Your task to perform on an android device: Open calendar and show me the second week of next month Image 0: 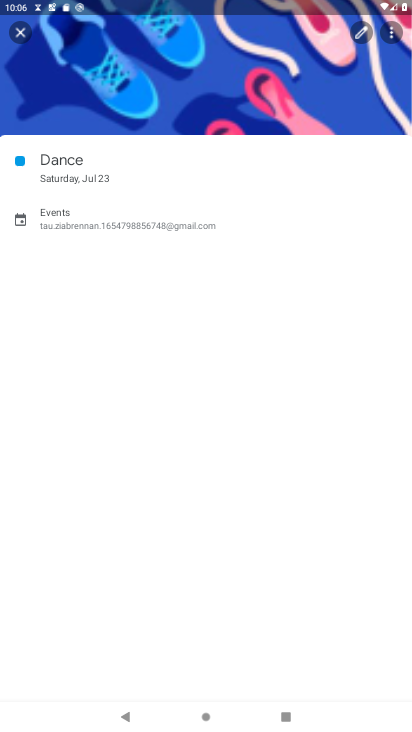
Step 0: press home button
Your task to perform on an android device: Open calendar and show me the second week of next month Image 1: 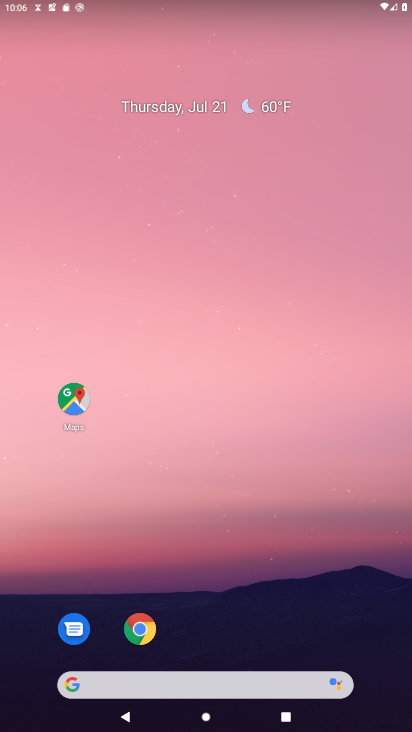
Step 1: drag from (199, 653) to (229, 223)
Your task to perform on an android device: Open calendar and show me the second week of next month Image 2: 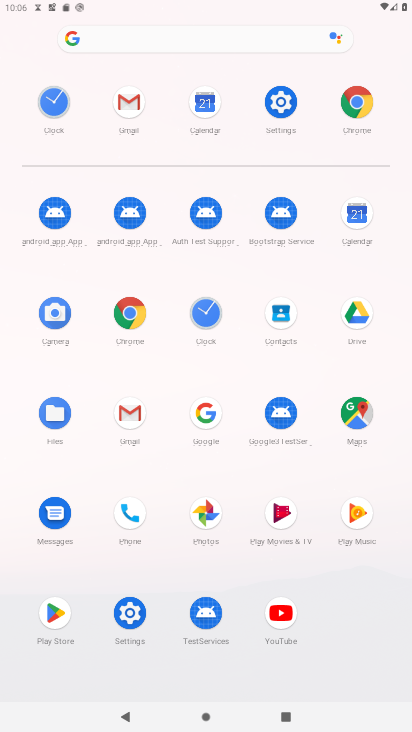
Step 2: click (362, 215)
Your task to perform on an android device: Open calendar and show me the second week of next month Image 3: 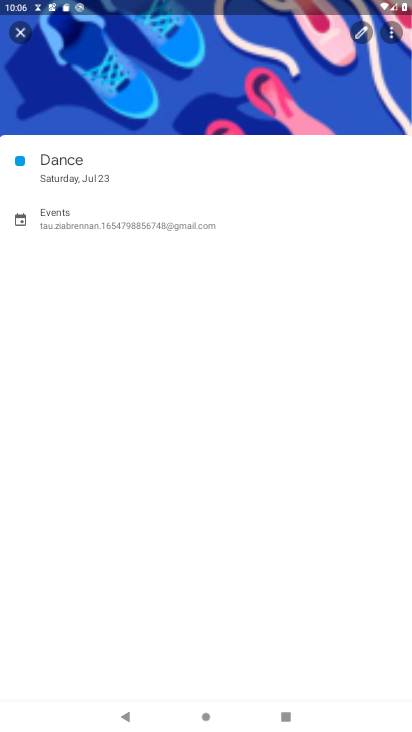
Step 3: click (22, 35)
Your task to perform on an android device: Open calendar and show me the second week of next month Image 4: 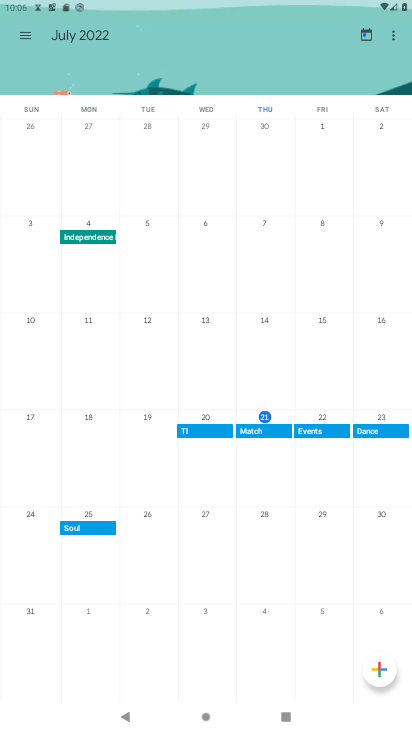
Step 4: drag from (341, 292) to (0, 45)
Your task to perform on an android device: Open calendar and show me the second week of next month Image 5: 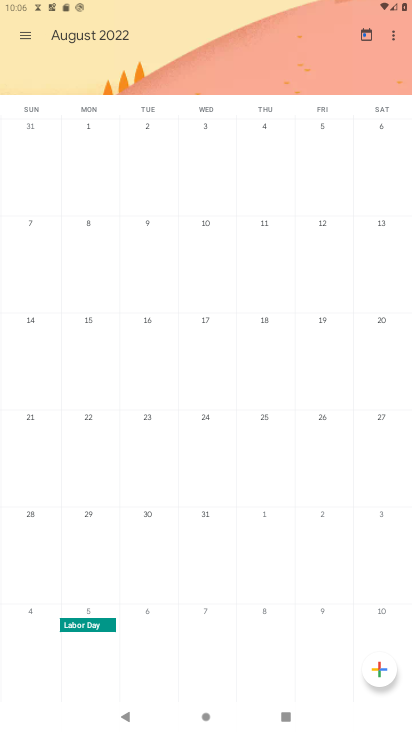
Step 5: click (21, 35)
Your task to perform on an android device: Open calendar and show me the second week of next month Image 6: 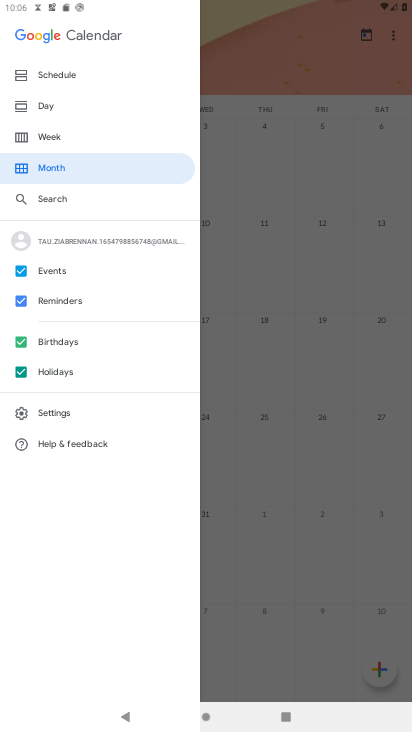
Step 6: click (57, 131)
Your task to perform on an android device: Open calendar and show me the second week of next month Image 7: 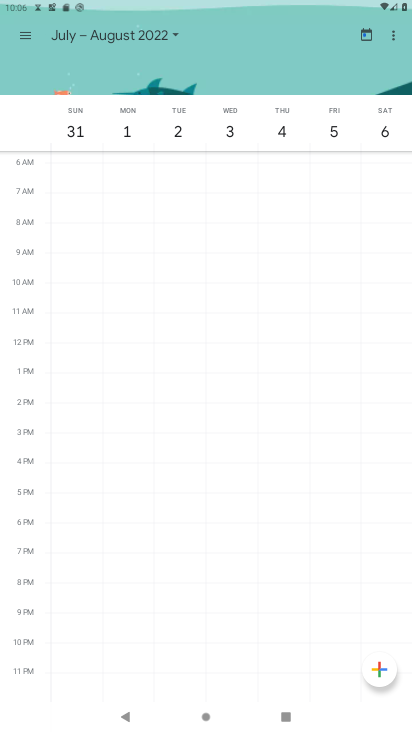
Step 7: task complete